Your task to perform on an android device: change the clock style Image 0: 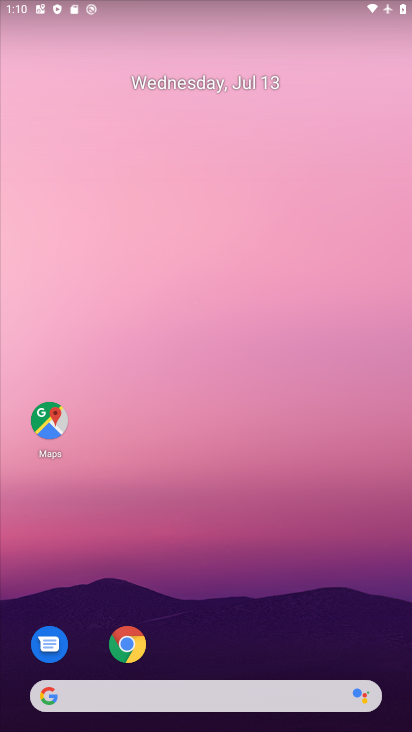
Step 0: drag from (294, 604) to (281, 157)
Your task to perform on an android device: change the clock style Image 1: 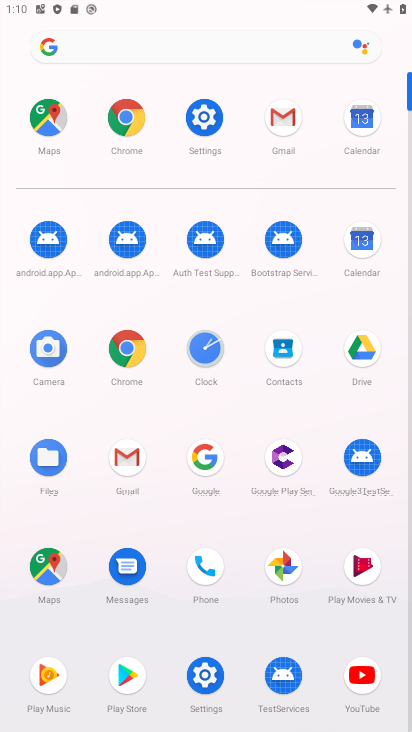
Step 1: click (211, 349)
Your task to perform on an android device: change the clock style Image 2: 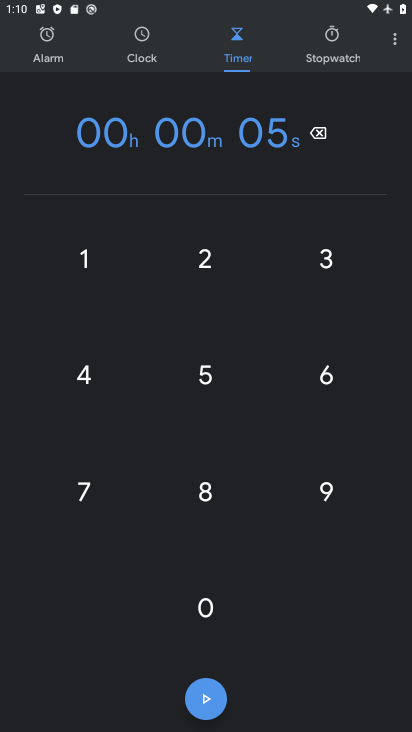
Step 2: click (397, 34)
Your task to perform on an android device: change the clock style Image 3: 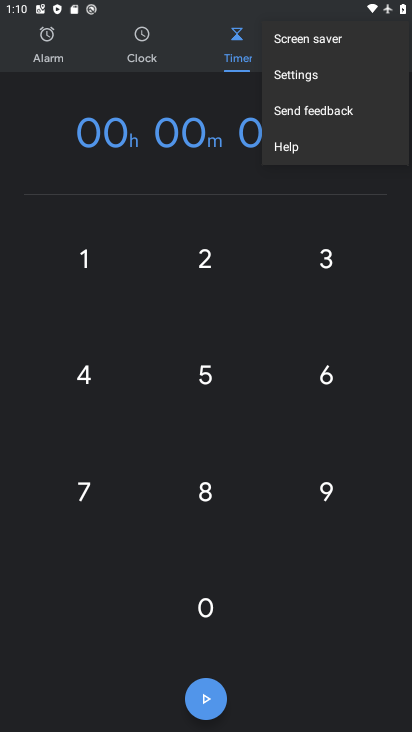
Step 3: click (304, 81)
Your task to perform on an android device: change the clock style Image 4: 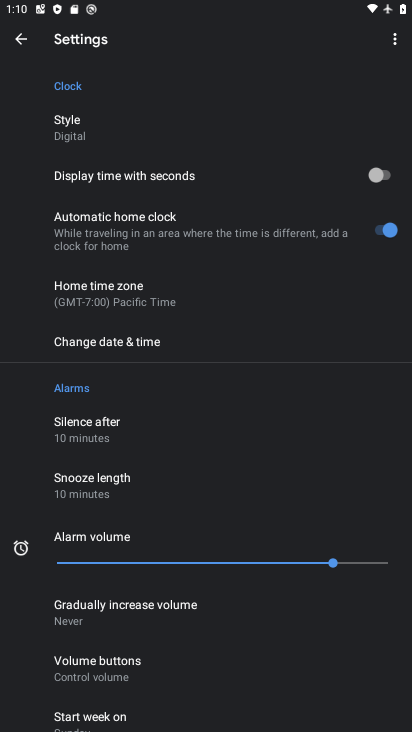
Step 4: click (74, 121)
Your task to perform on an android device: change the clock style Image 5: 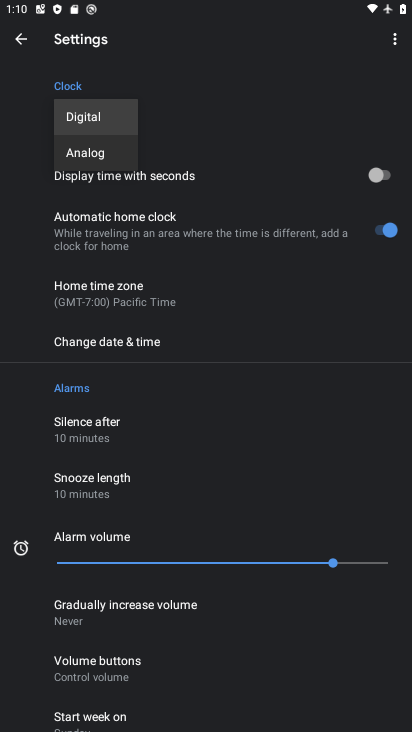
Step 5: click (91, 150)
Your task to perform on an android device: change the clock style Image 6: 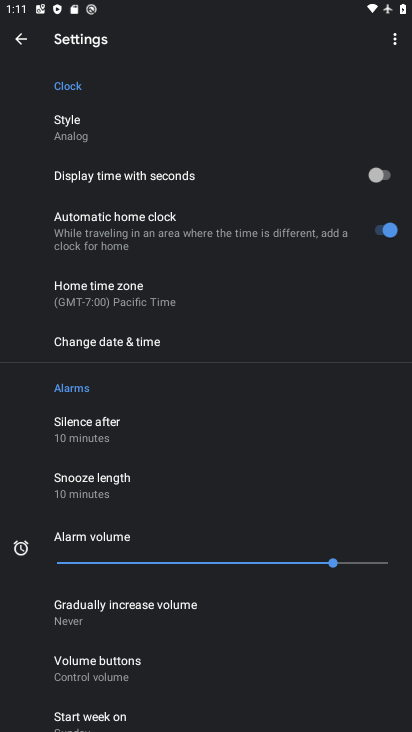
Step 6: task complete